Your task to perform on an android device: Go to Yahoo.com Image 0: 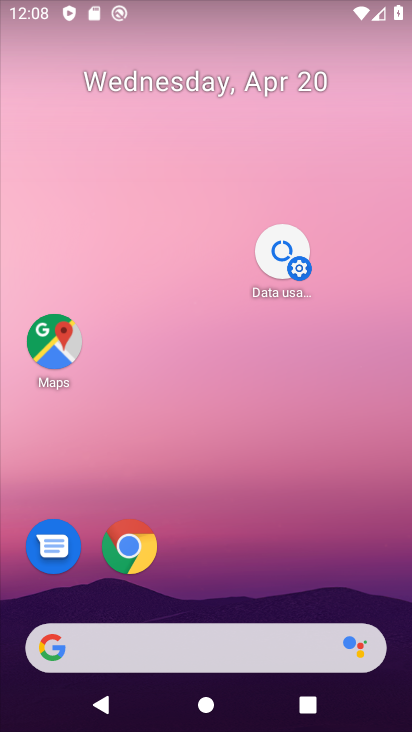
Step 0: click (225, 650)
Your task to perform on an android device: Go to Yahoo.com Image 1: 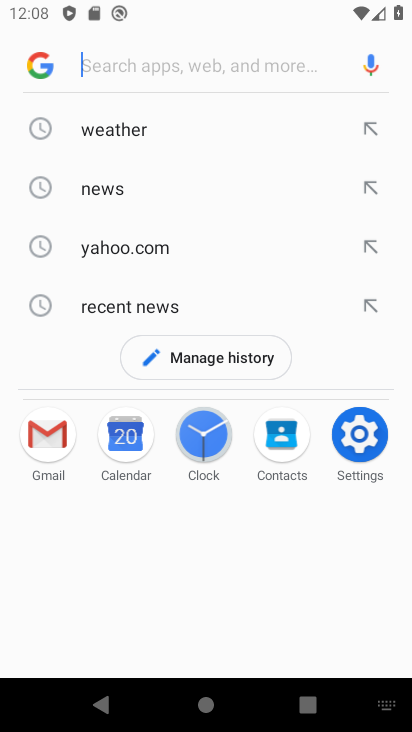
Step 1: click (225, 245)
Your task to perform on an android device: Go to Yahoo.com Image 2: 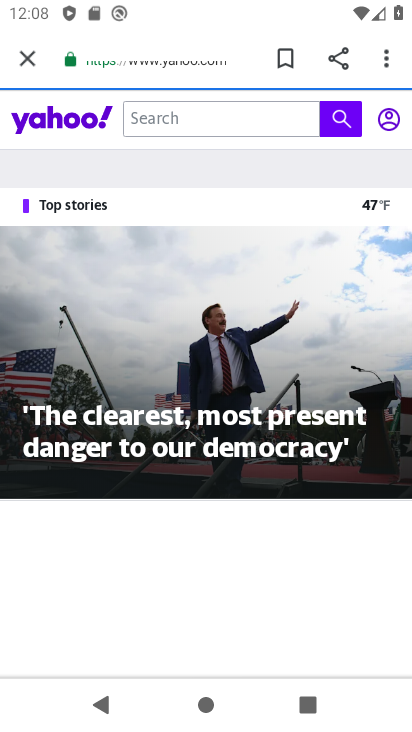
Step 2: task complete